Your task to perform on an android device: find snoozed emails in the gmail app Image 0: 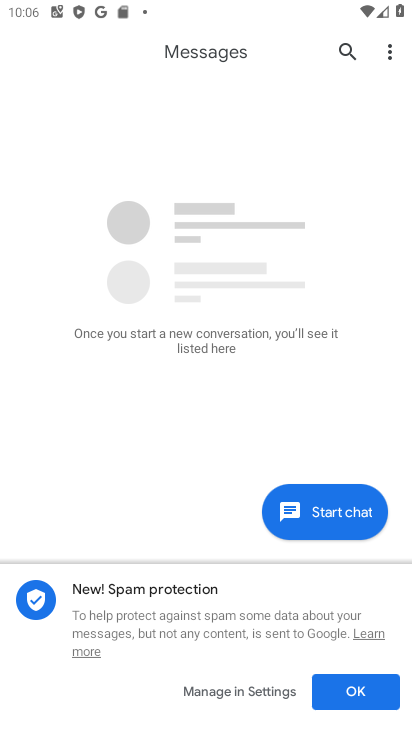
Step 0: press home button
Your task to perform on an android device: find snoozed emails in the gmail app Image 1: 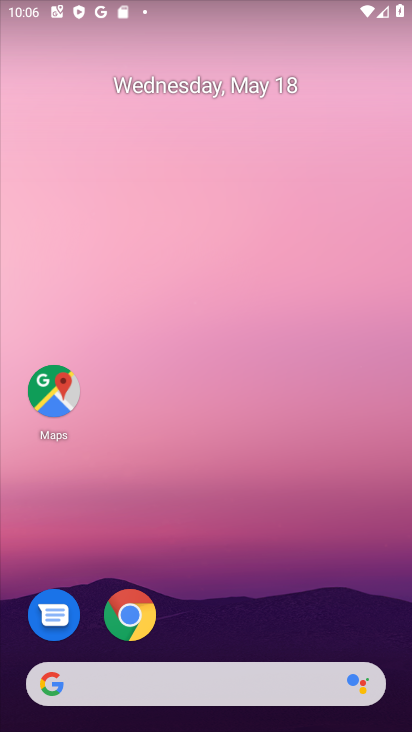
Step 1: drag from (251, 623) to (179, 69)
Your task to perform on an android device: find snoozed emails in the gmail app Image 2: 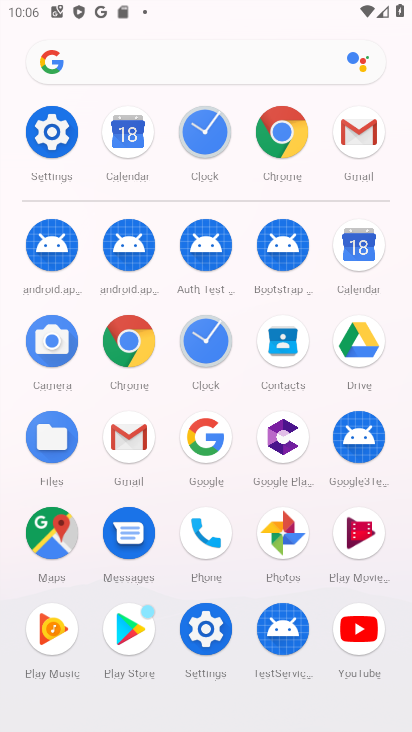
Step 2: click (125, 427)
Your task to perform on an android device: find snoozed emails in the gmail app Image 3: 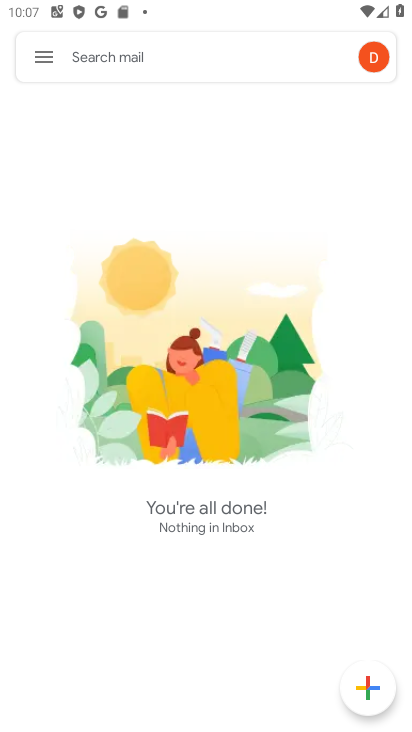
Step 3: click (33, 51)
Your task to perform on an android device: find snoozed emails in the gmail app Image 4: 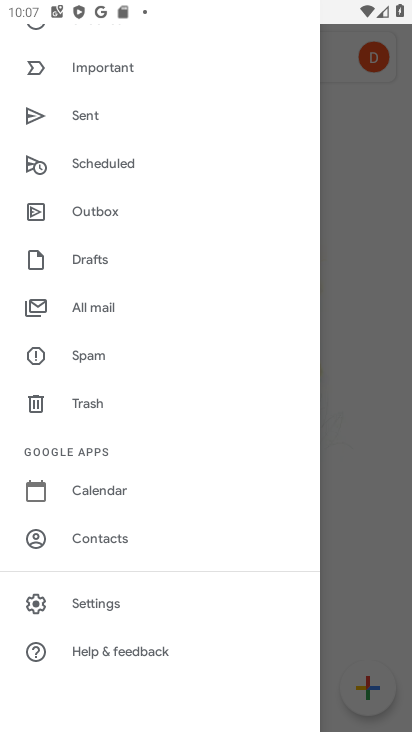
Step 4: drag from (102, 102) to (143, 490)
Your task to perform on an android device: find snoozed emails in the gmail app Image 5: 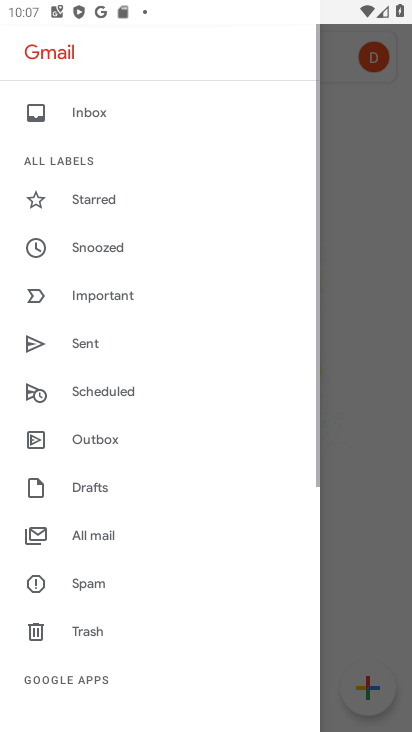
Step 5: click (111, 251)
Your task to perform on an android device: find snoozed emails in the gmail app Image 6: 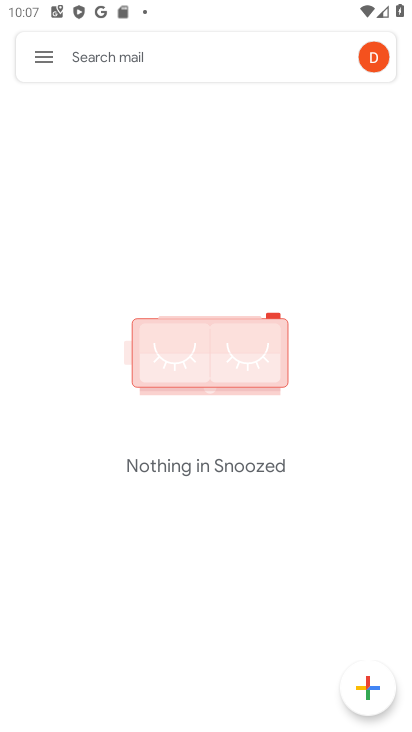
Step 6: task complete